Your task to perform on an android device: Open ESPN.com Image 0: 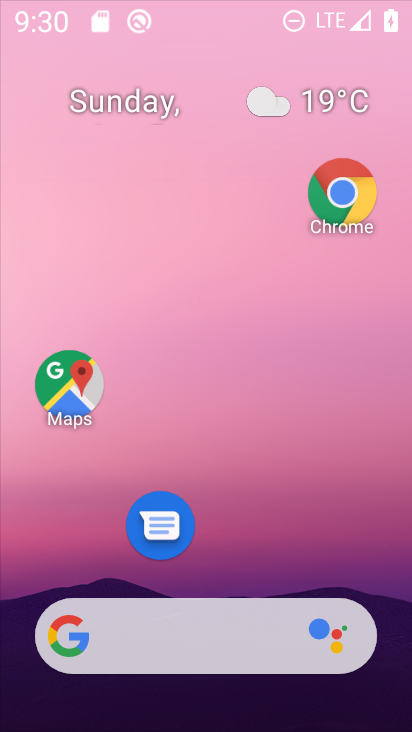
Step 0: press home button
Your task to perform on an android device: Open ESPN.com Image 1: 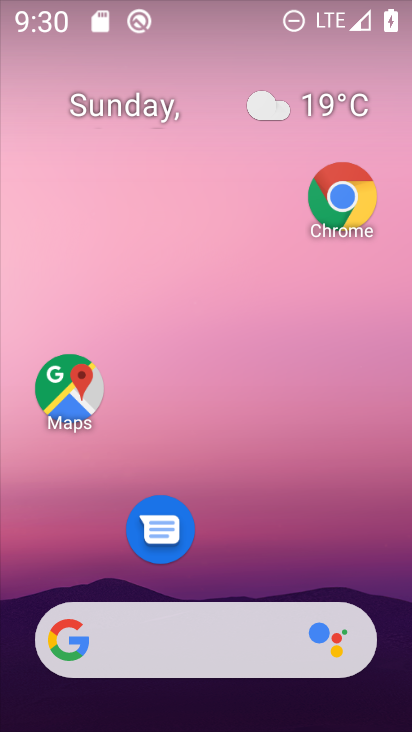
Step 1: drag from (237, 13) to (255, 93)
Your task to perform on an android device: Open ESPN.com Image 2: 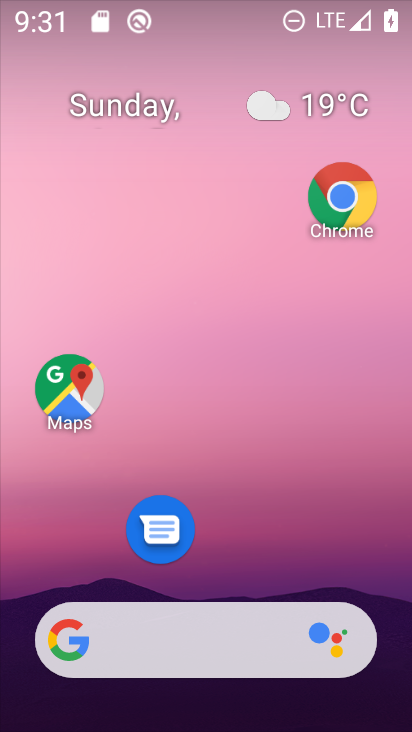
Step 2: click (339, 190)
Your task to perform on an android device: Open ESPN.com Image 3: 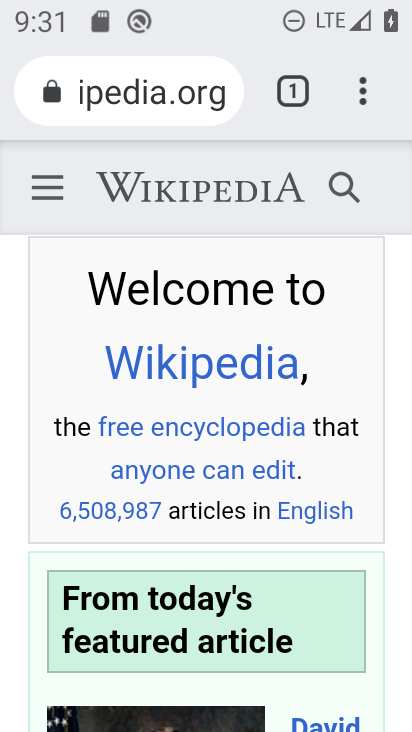
Step 3: click (289, 82)
Your task to perform on an android device: Open ESPN.com Image 4: 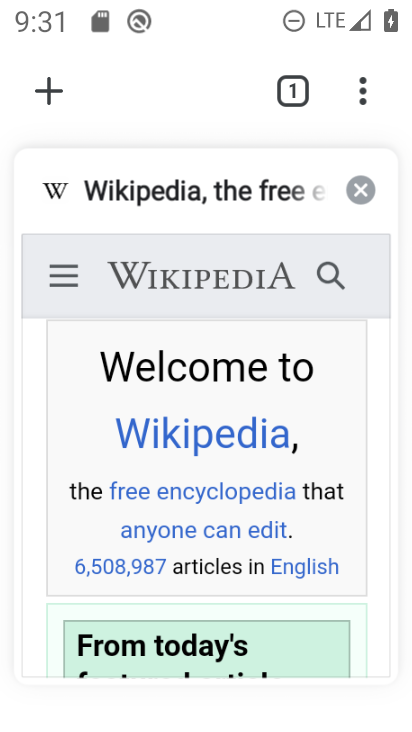
Step 4: click (359, 187)
Your task to perform on an android device: Open ESPN.com Image 5: 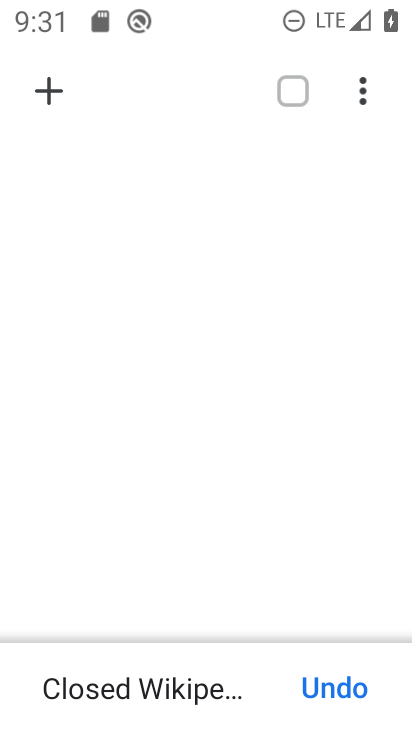
Step 5: click (56, 91)
Your task to perform on an android device: Open ESPN.com Image 6: 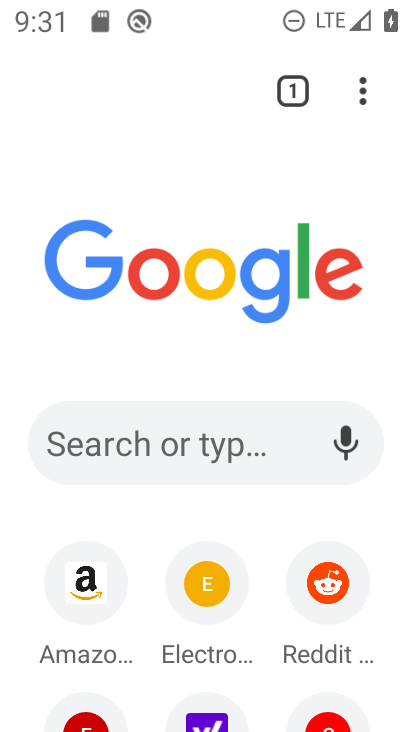
Step 6: drag from (273, 676) to (279, 157)
Your task to perform on an android device: Open ESPN.com Image 7: 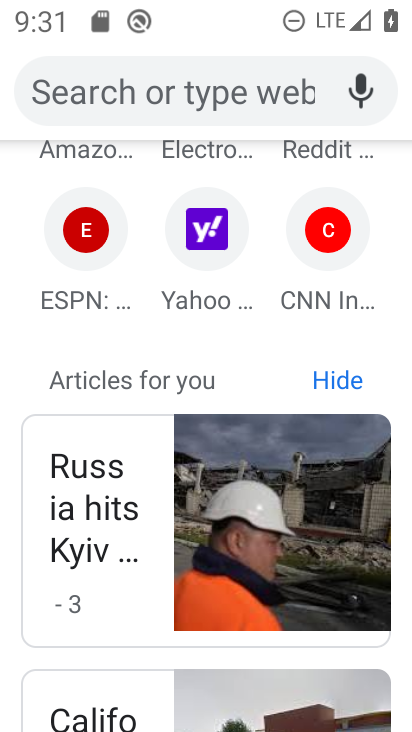
Step 7: click (76, 223)
Your task to perform on an android device: Open ESPN.com Image 8: 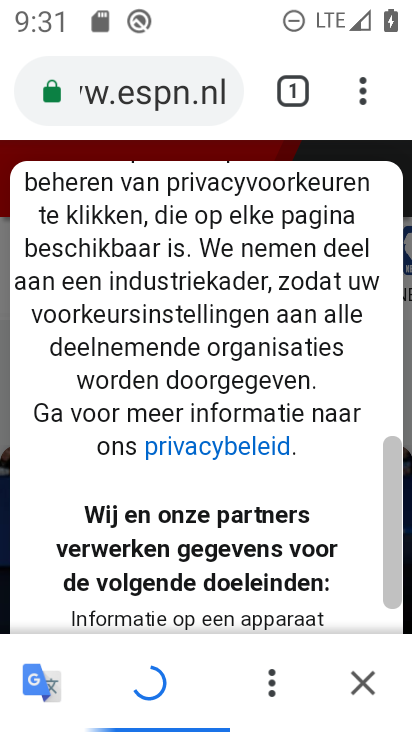
Step 8: drag from (230, 588) to (232, 132)
Your task to perform on an android device: Open ESPN.com Image 9: 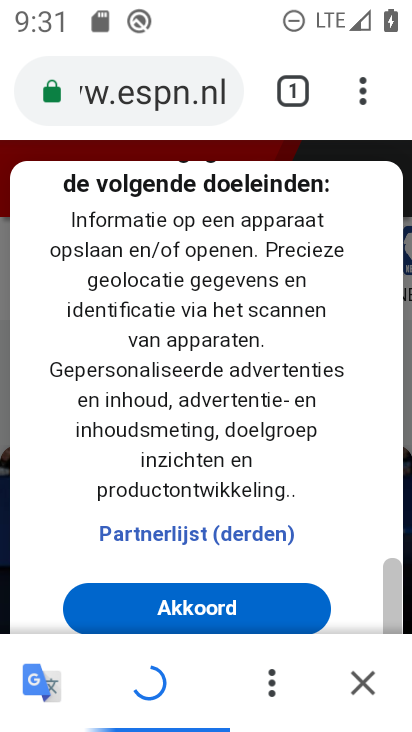
Step 9: drag from (217, 597) to (244, 190)
Your task to perform on an android device: Open ESPN.com Image 10: 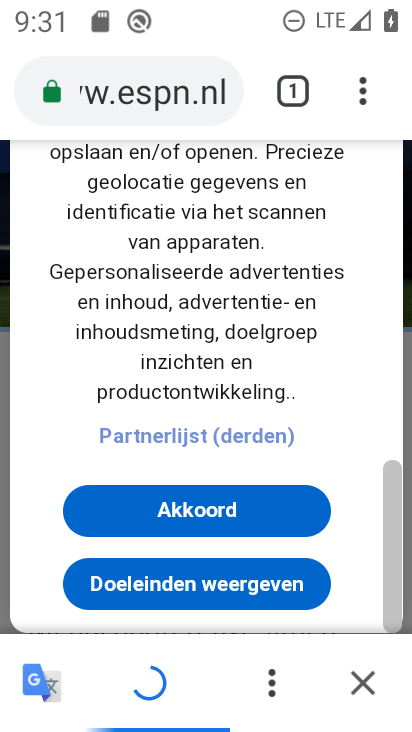
Step 10: click (198, 508)
Your task to perform on an android device: Open ESPN.com Image 11: 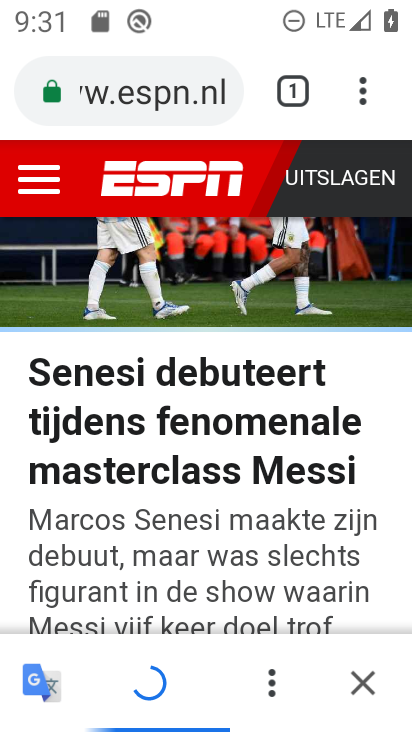
Step 11: task complete